Your task to perform on an android device: delete location history Image 0: 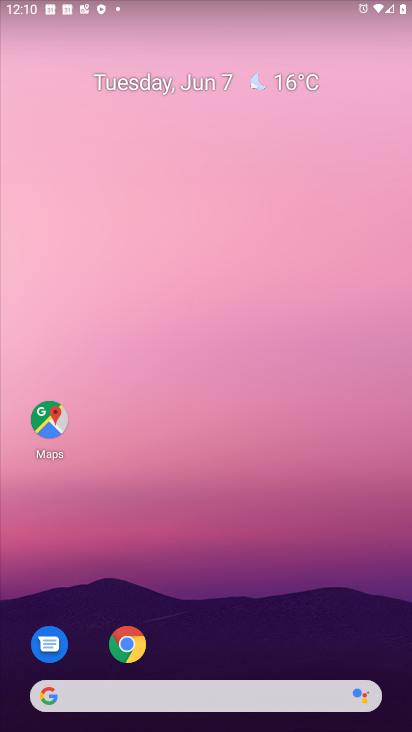
Step 0: drag from (234, 565) to (198, 223)
Your task to perform on an android device: delete location history Image 1: 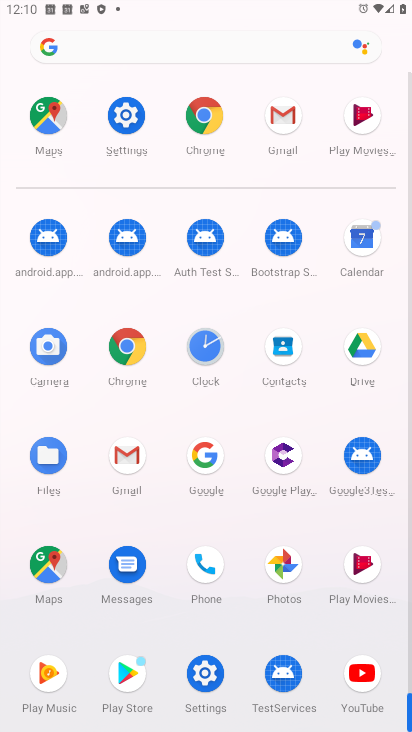
Step 1: click (206, 680)
Your task to perform on an android device: delete location history Image 2: 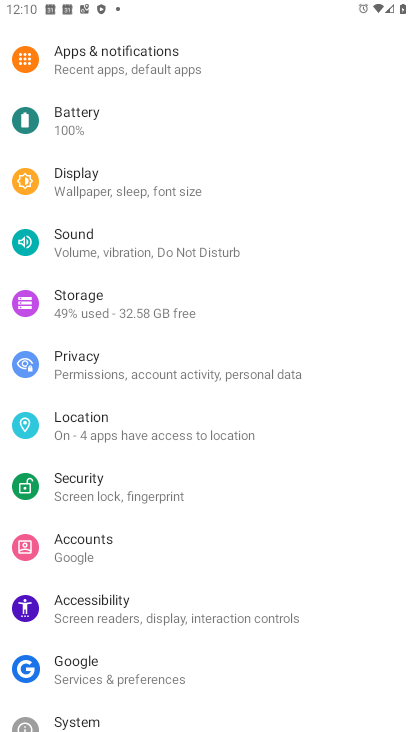
Step 2: click (131, 439)
Your task to perform on an android device: delete location history Image 3: 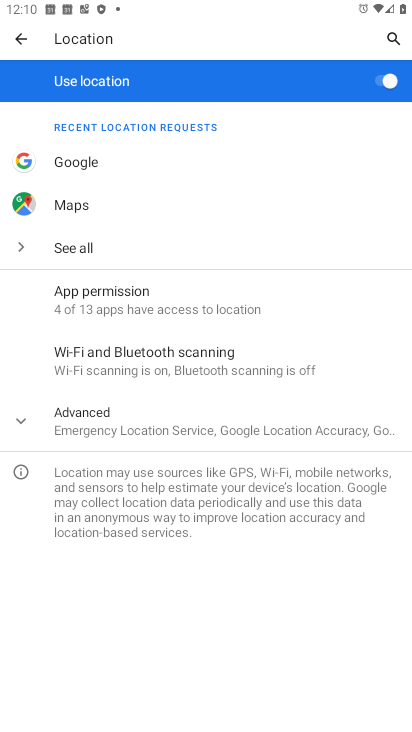
Step 3: click (130, 421)
Your task to perform on an android device: delete location history Image 4: 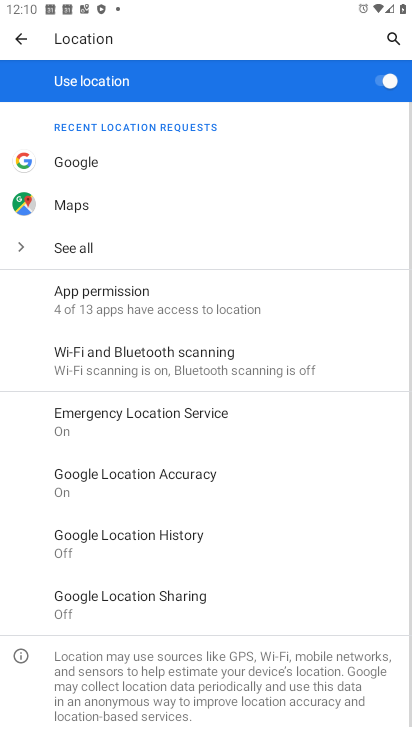
Step 4: click (207, 546)
Your task to perform on an android device: delete location history Image 5: 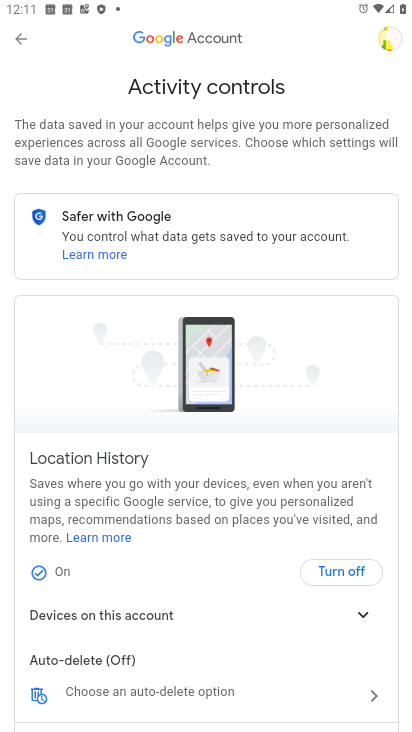
Step 5: click (363, 700)
Your task to perform on an android device: delete location history Image 6: 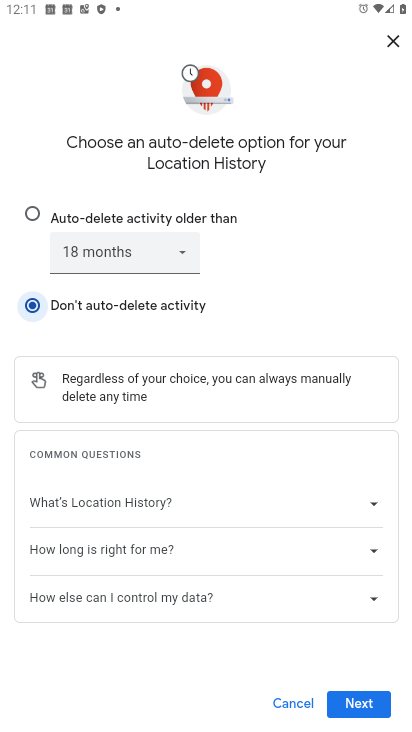
Step 6: click (164, 254)
Your task to perform on an android device: delete location history Image 7: 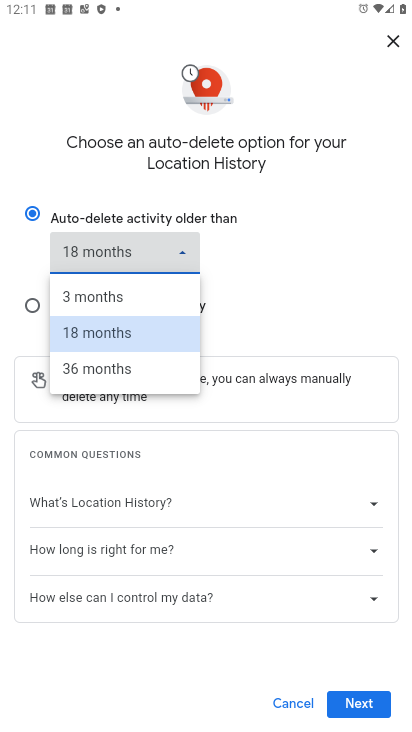
Step 7: click (182, 259)
Your task to perform on an android device: delete location history Image 8: 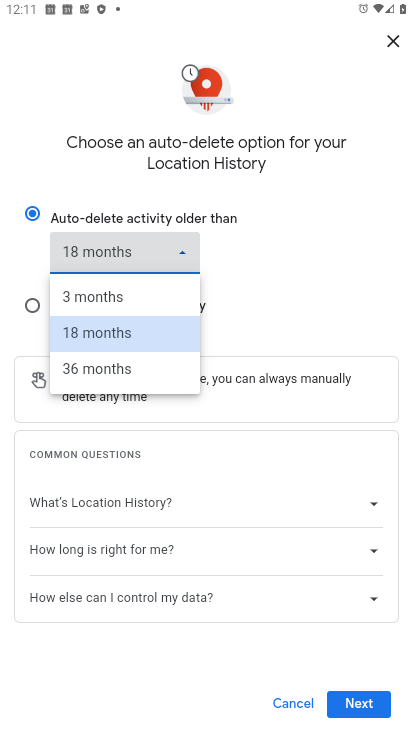
Step 8: click (132, 299)
Your task to perform on an android device: delete location history Image 9: 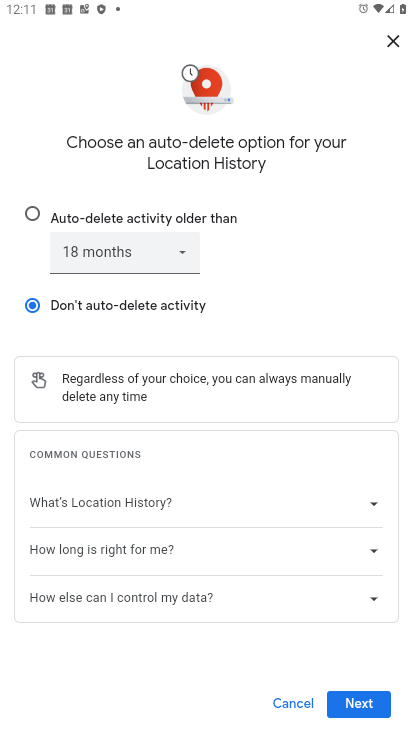
Step 9: click (169, 251)
Your task to perform on an android device: delete location history Image 10: 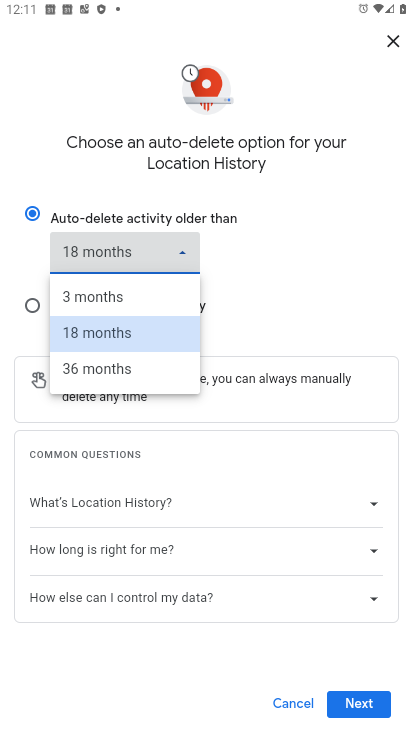
Step 10: click (126, 301)
Your task to perform on an android device: delete location history Image 11: 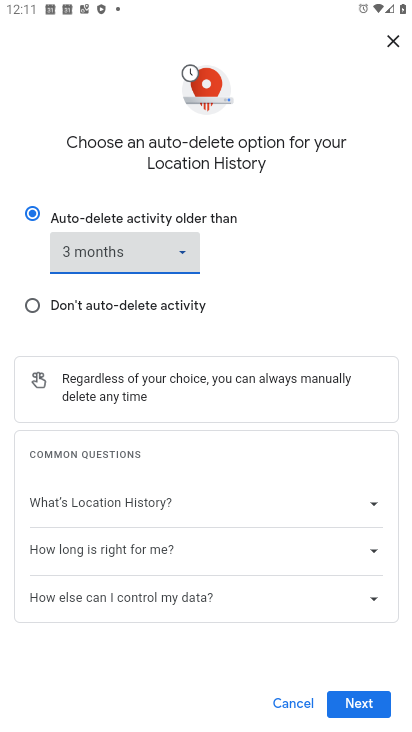
Step 11: click (381, 708)
Your task to perform on an android device: delete location history Image 12: 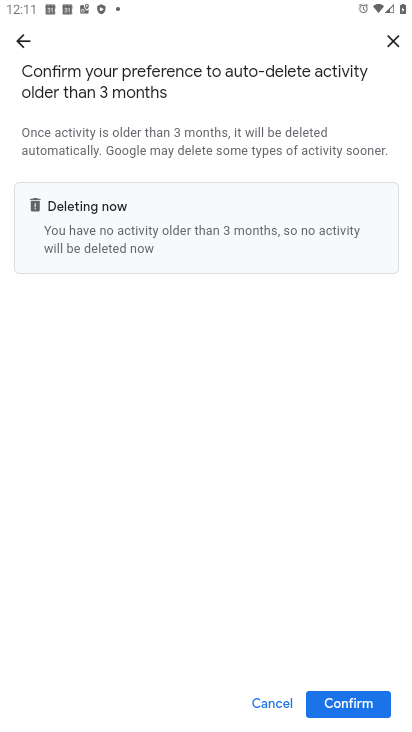
Step 12: click (339, 702)
Your task to perform on an android device: delete location history Image 13: 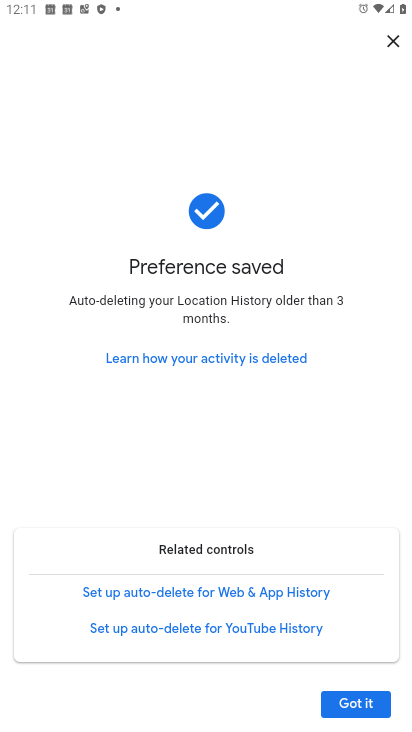
Step 13: click (367, 704)
Your task to perform on an android device: delete location history Image 14: 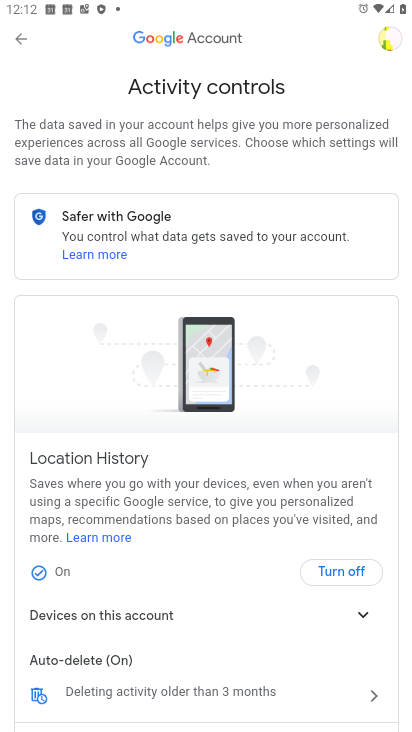
Step 14: task complete